Your task to perform on an android device: Go to location settings Image 0: 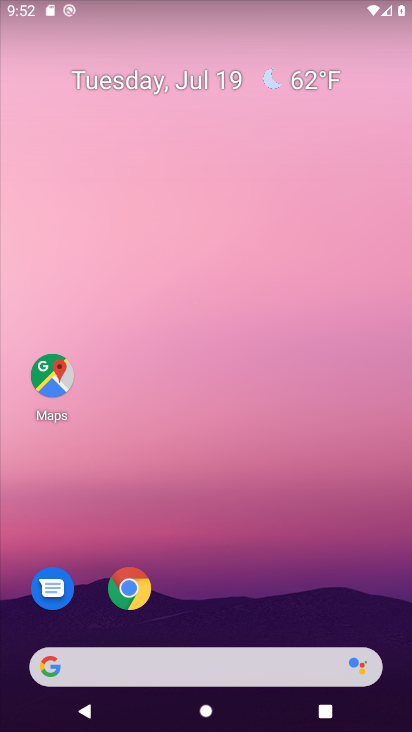
Step 0: click (190, 13)
Your task to perform on an android device: Go to location settings Image 1: 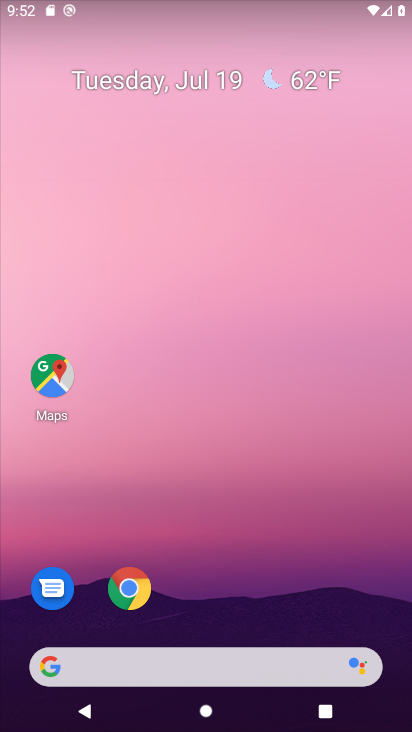
Step 1: drag from (194, 598) to (142, 23)
Your task to perform on an android device: Go to location settings Image 2: 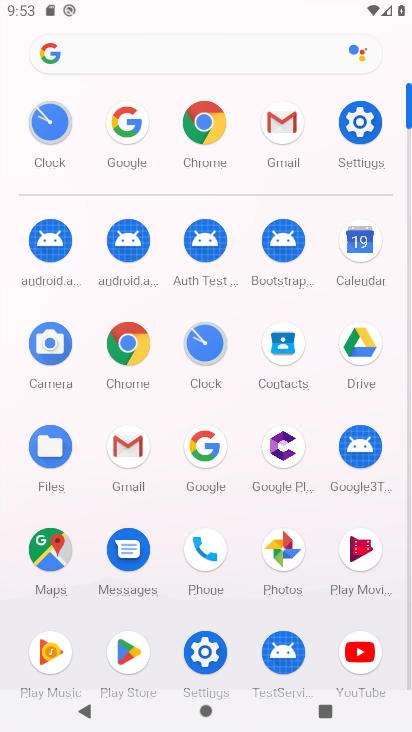
Step 2: click (359, 127)
Your task to perform on an android device: Go to location settings Image 3: 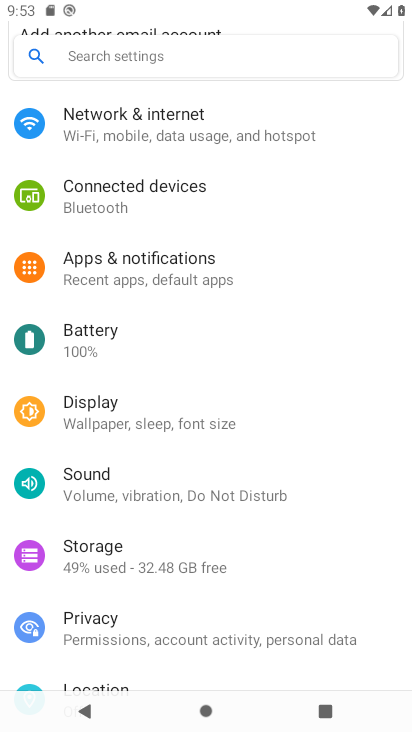
Step 3: drag from (143, 677) to (163, 442)
Your task to perform on an android device: Go to location settings Image 4: 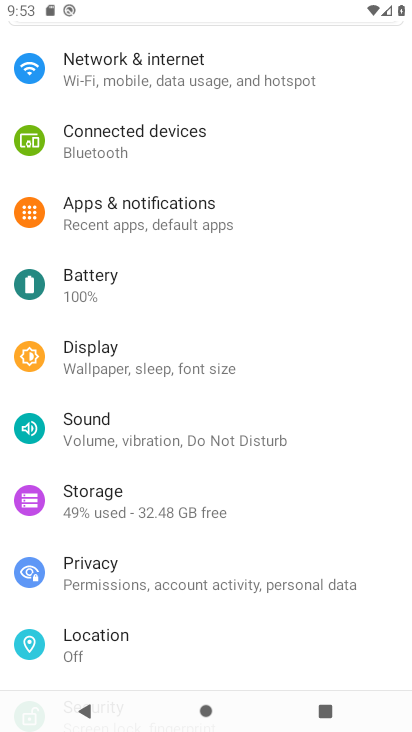
Step 4: click (71, 643)
Your task to perform on an android device: Go to location settings Image 5: 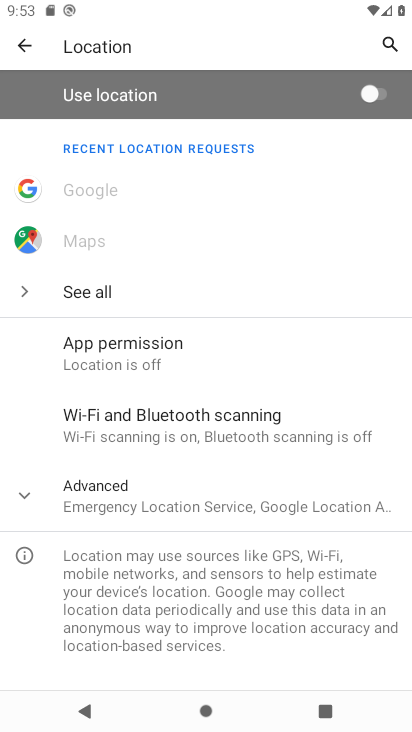
Step 5: task complete